Your task to perform on an android device: turn on sleep mode Image 0: 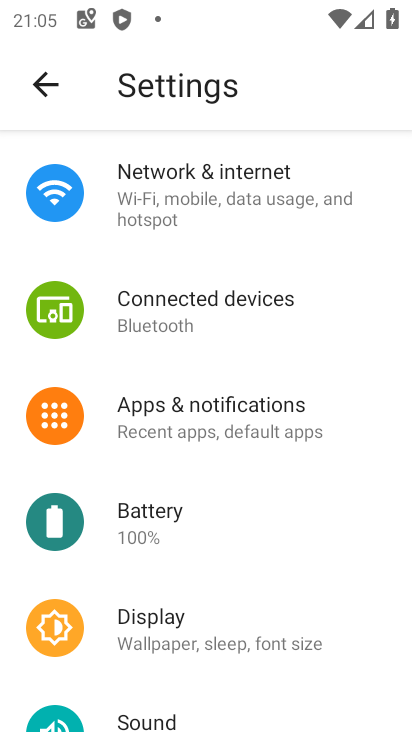
Step 0: task impossible